Your task to perform on an android device: turn off smart reply in the gmail app Image 0: 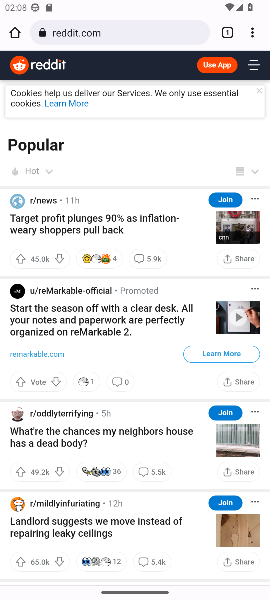
Step 0: press home button
Your task to perform on an android device: turn off smart reply in the gmail app Image 1: 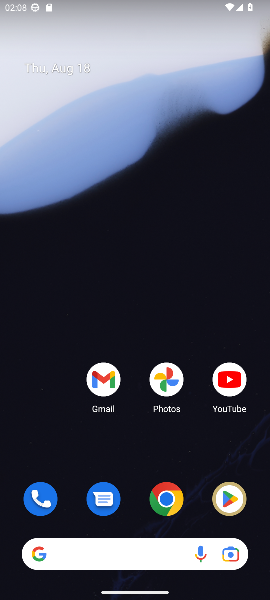
Step 1: click (101, 374)
Your task to perform on an android device: turn off smart reply in the gmail app Image 2: 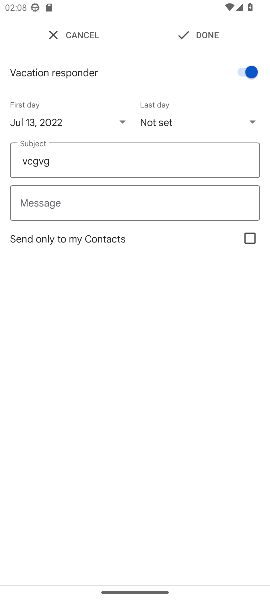
Step 2: click (184, 37)
Your task to perform on an android device: turn off smart reply in the gmail app Image 3: 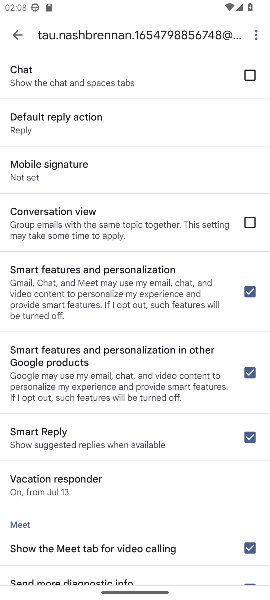
Step 3: click (249, 436)
Your task to perform on an android device: turn off smart reply in the gmail app Image 4: 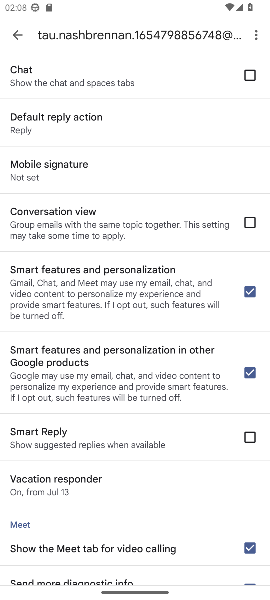
Step 4: task complete